Your task to perform on an android device: Open Amazon Image 0: 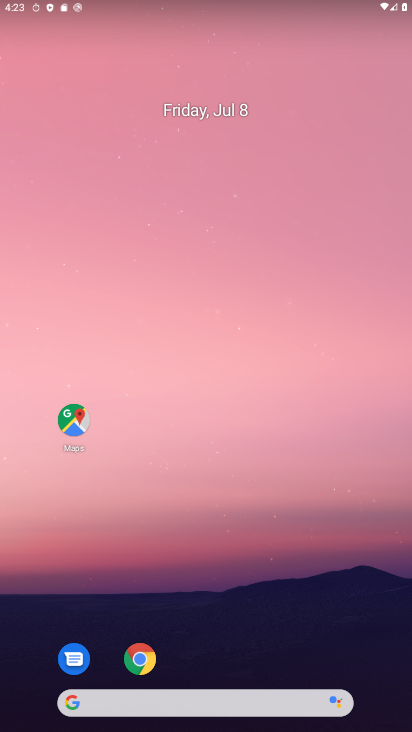
Step 0: drag from (285, 370) to (288, 105)
Your task to perform on an android device: Open Amazon Image 1: 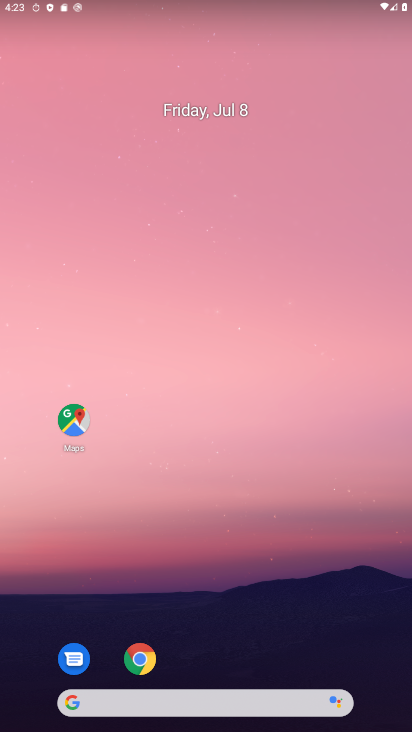
Step 1: drag from (324, 517) to (287, 52)
Your task to perform on an android device: Open Amazon Image 2: 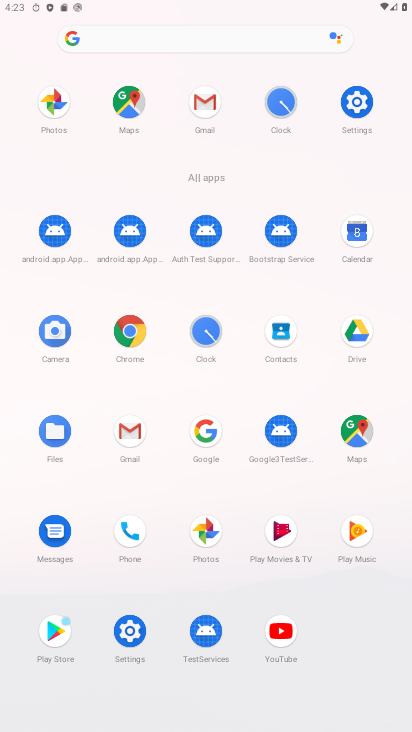
Step 2: click (126, 332)
Your task to perform on an android device: Open Amazon Image 3: 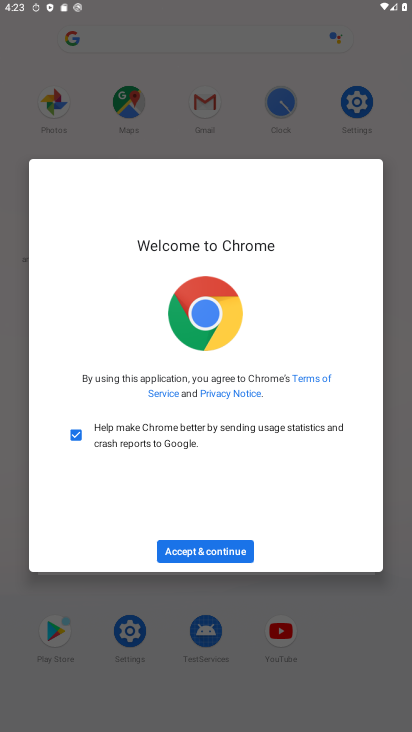
Step 3: click (235, 551)
Your task to perform on an android device: Open Amazon Image 4: 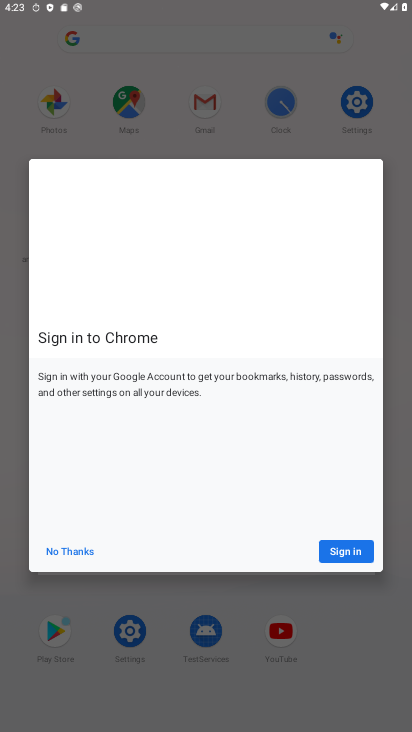
Step 4: click (77, 544)
Your task to perform on an android device: Open Amazon Image 5: 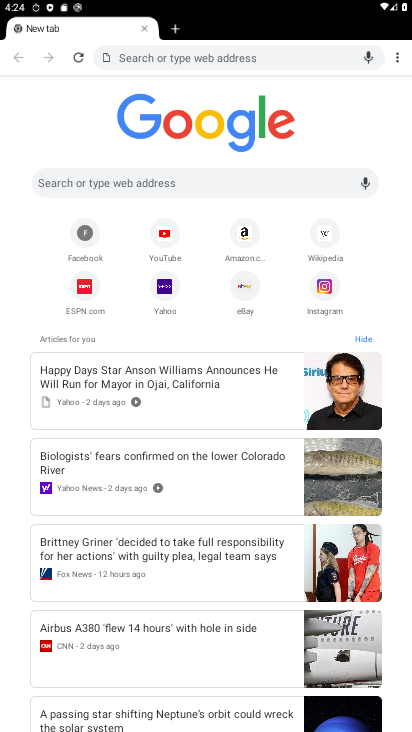
Step 5: click (247, 233)
Your task to perform on an android device: Open Amazon Image 6: 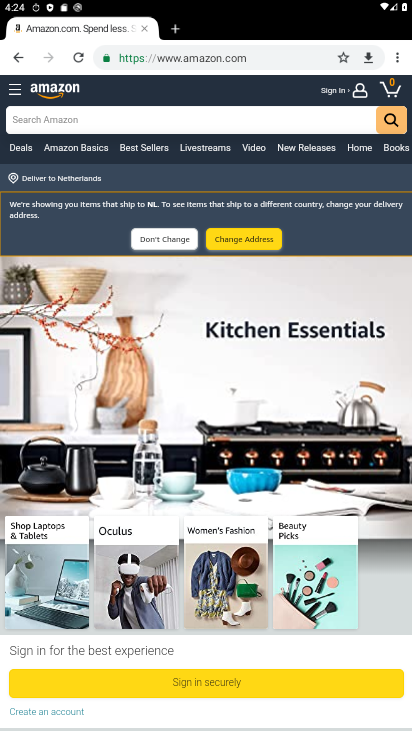
Step 6: task complete